Your task to perform on an android device: Show me productivity apps on the Play Store Image 0: 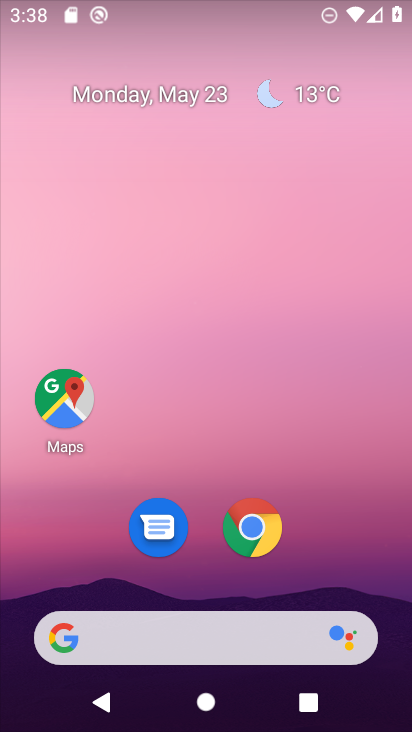
Step 0: press home button
Your task to perform on an android device: Show me productivity apps on the Play Store Image 1: 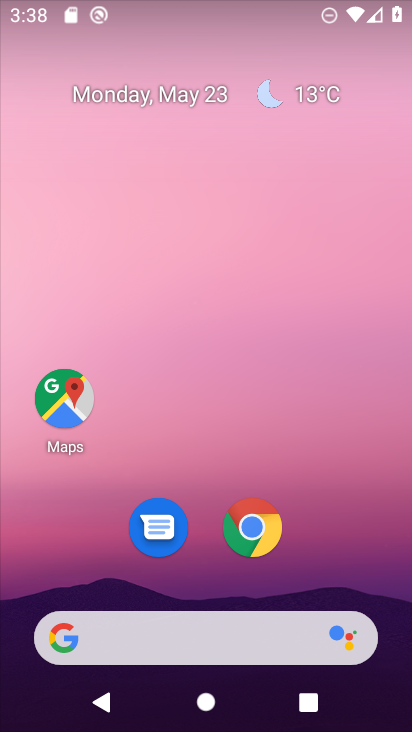
Step 1: drag from (207, 573) to (228, 7)
Your task to perform on an android device: Show me productivity apps on the Play Store Image 2: 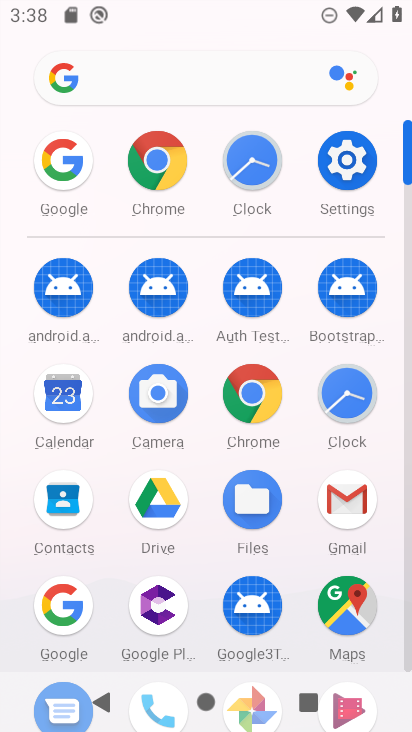
Step 2: drag from (204, 632) to (226, 125)
Your task to perform on an android device: Show me productivity apps on the Play Store Image 3: 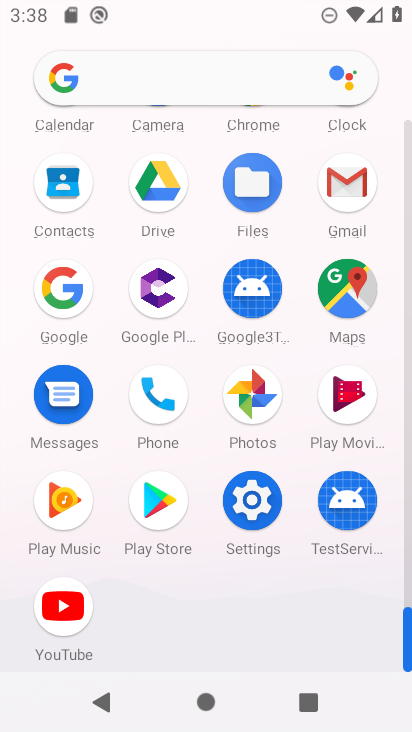
Step 3: click (154, 492)
Your task to perform on an android device: Show me productivity apps on the Play Store Image 4: 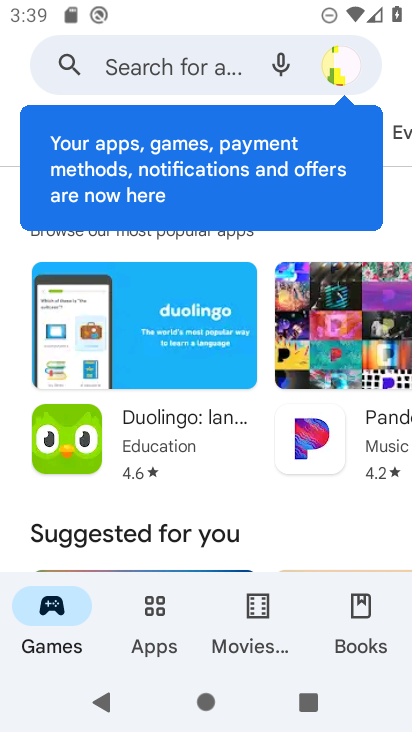
Step 4: click (149, 600)
Your task to perform on an android device: Show me productivity apps on the Play Store Image 5: 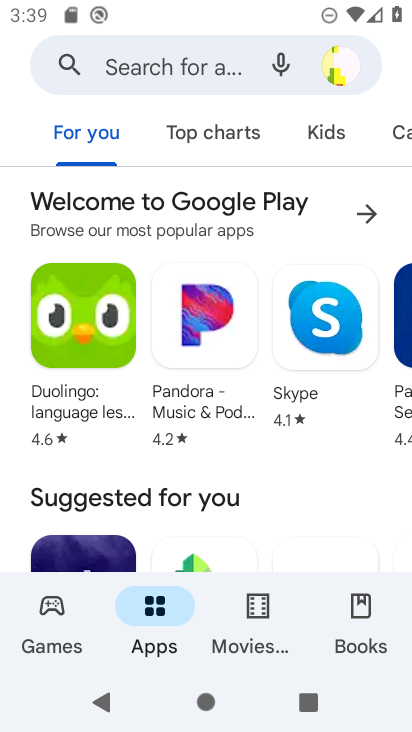
Step 5: click (398, 134)
Your task to perform on an android device: Show me productivity apps on the Play Store Image 6: 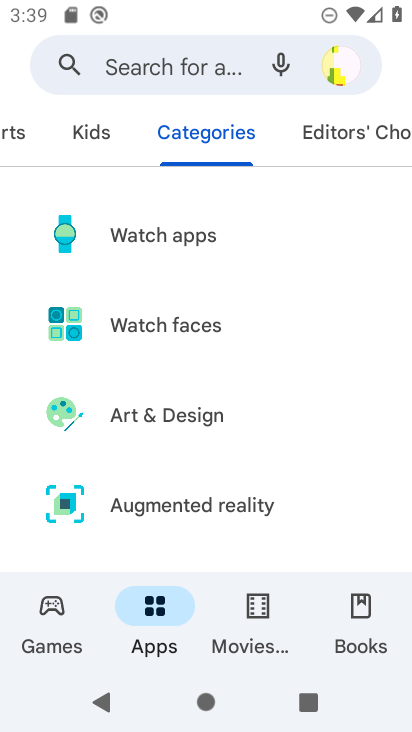
Step 6: drag from (191, 528) to (191, 63)
Your task to perform on an android device: Show me productivity apps on the Play Store Image 7: 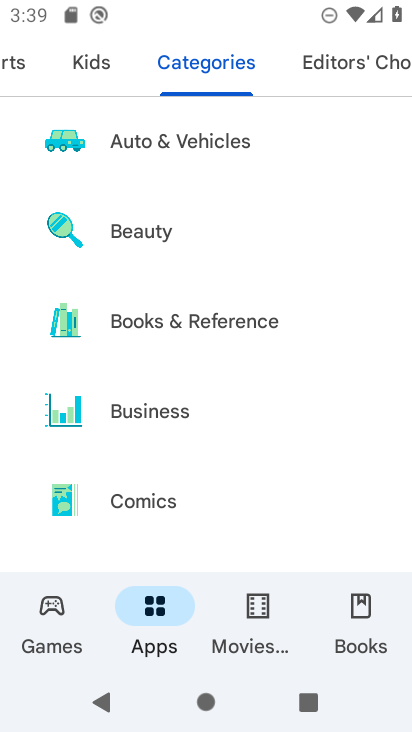
Step 7: drag from (181, 539) to (209, 95)
Your task to perform on an android device: Show me productivity apps on the Play Store Image 8: 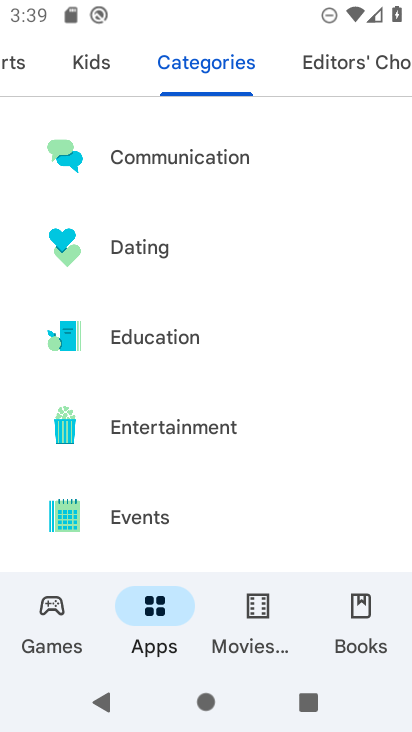
Step 8: drag from (197, 524) to (226, 107)
Your task to perform on an android device: Show me productivity apps on the Play Store Image 9: 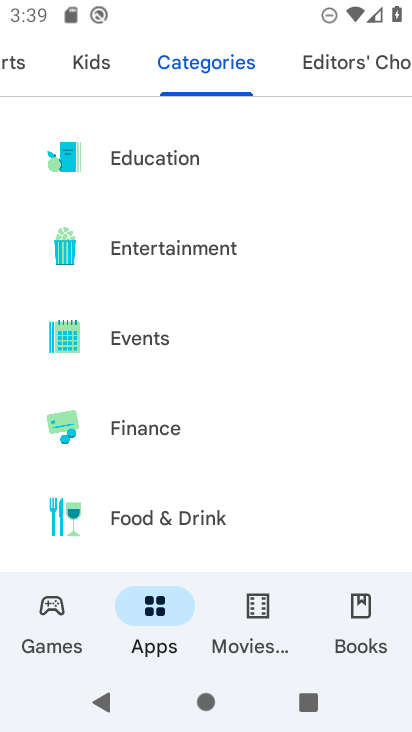
Step 9: drag from (184, 538) to (188, 54)
Your task to perform on an android device: Show me productivity apps on the Play Store Image 10: 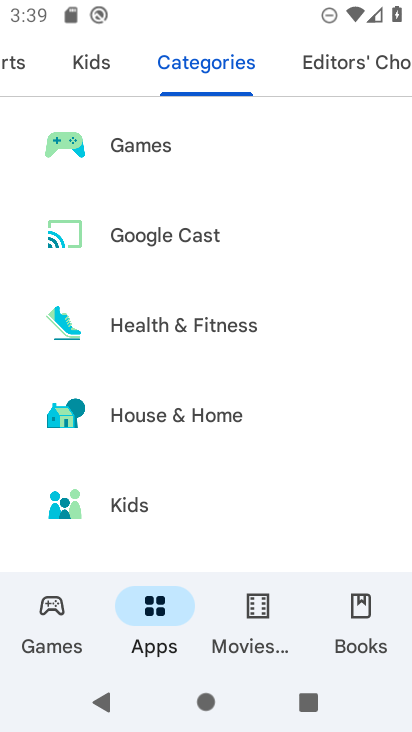
Step 10: drag from (169, 533) to (179, 60)
Your task to perform on an android device: Show me productivity apps on the Play Store Image 11: 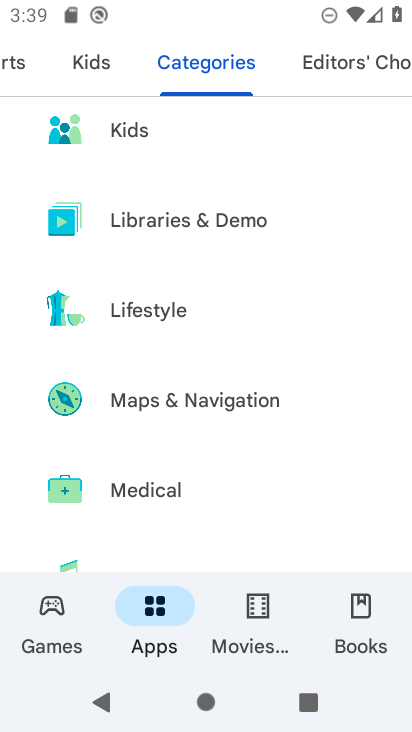
Step 11: drag from (185, 522) to (195, 80)
Your task to perform on an android device: Show me productivity apps on the Play Store Image 12: 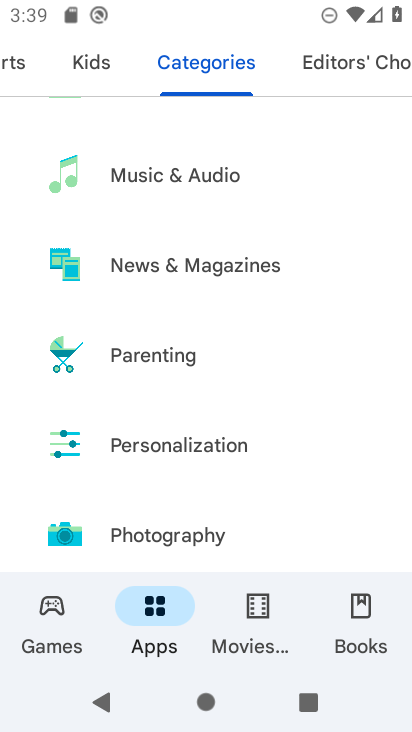
Step 12: drag from (177, 500) to (192, 147)
Your task to perform on an android device: Show me productivity apps on the Play Store Image 13: 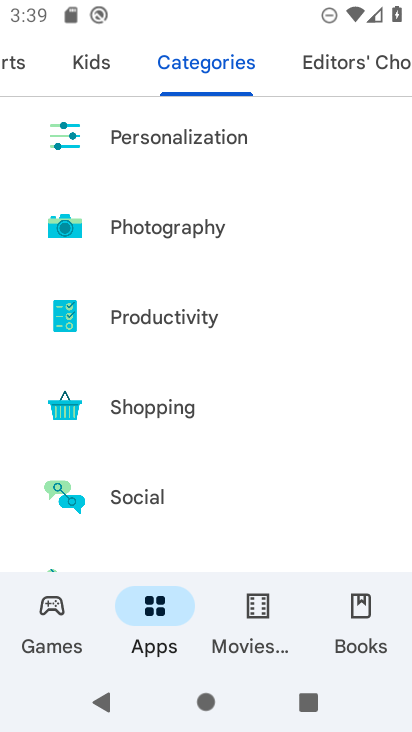
Step 13: click (234, 314)
Your task to perform on an android device: Show me productivity apps on the Play Store Image 14: 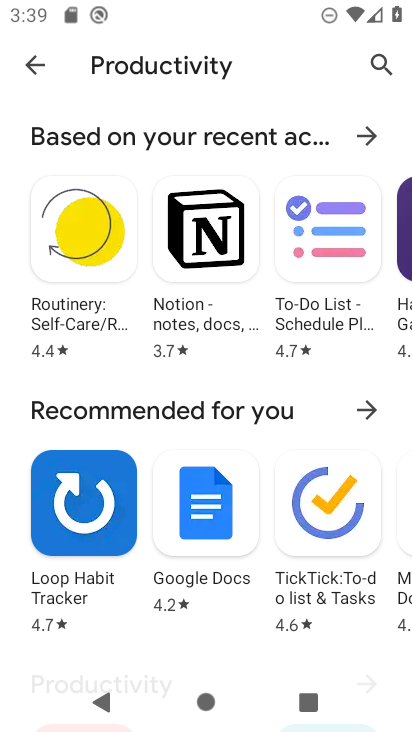
Step 14: task complete